Your task to perform on an android device: change notification settings in the gmail app Image 0: 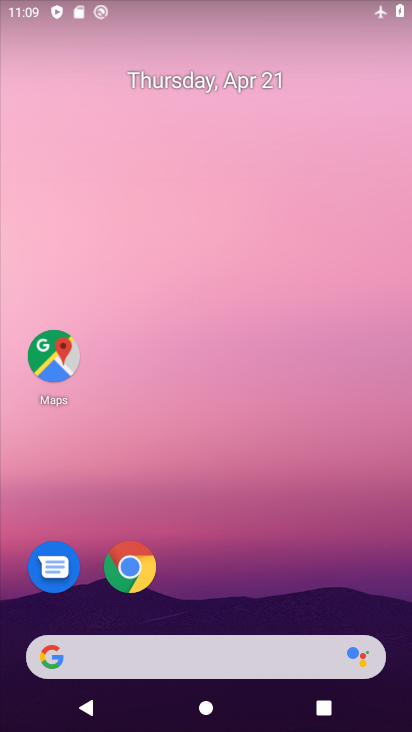
Step 0: drag from (191, 619) to (255, 108)
Your task to perform on an android device: change notification settings in the gmail app Image 1: 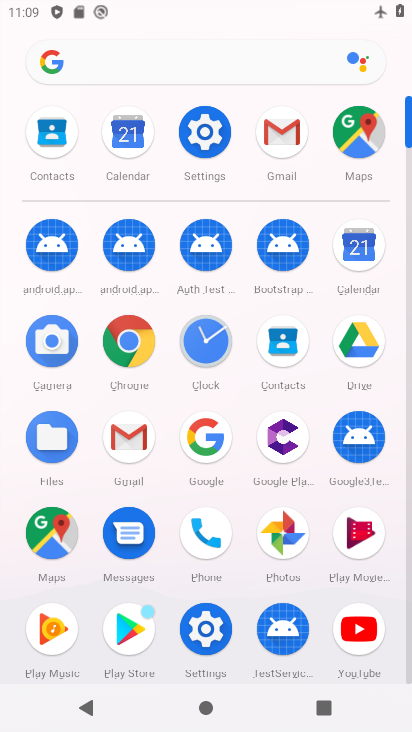
Step 1: click (131, 443)
Your task to perform on an android device: change notification settings in the gmail app Image 2: 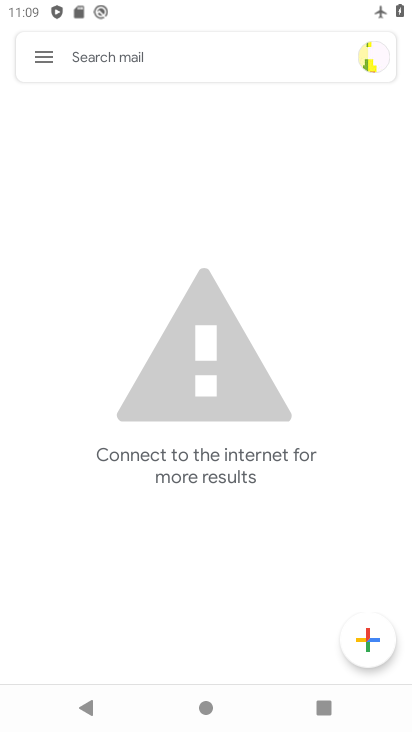
Step 2: click (43, 55)
Your task to perform on an android device: change notification settings in the gmail app Image 3: 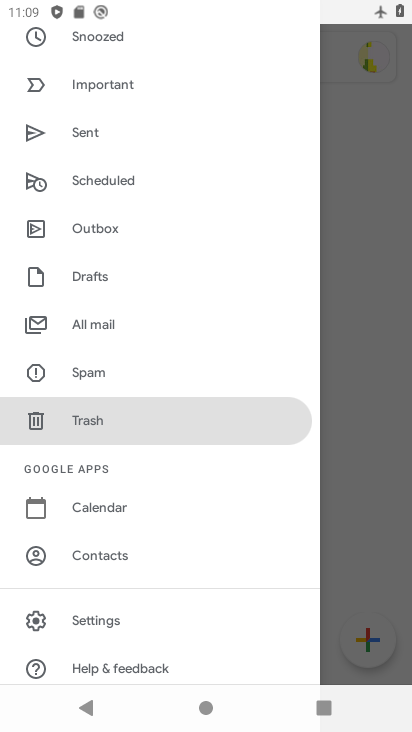
Step 3: click (87, 615)
Your task to perform on an android device: change notification settings in the gmail app Image 4: 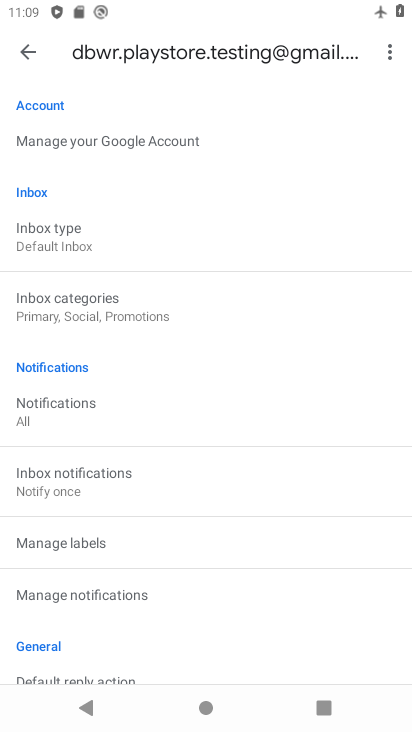
Step 4: click (29, 52)
Your task to perform on an android device: change notification settings in the gmail app Image 5: 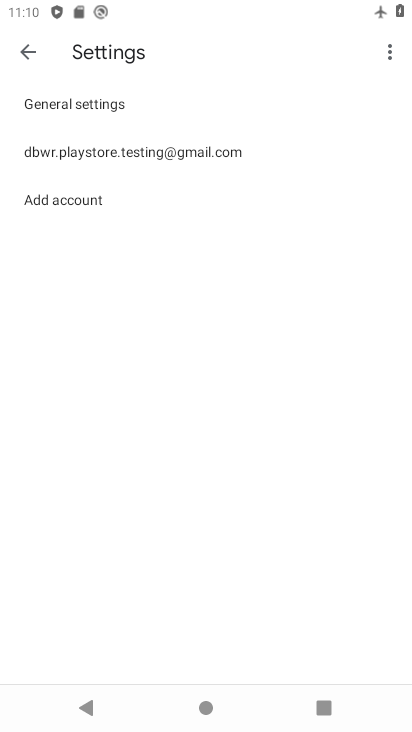
Step 5: click (102, 102)
Your task to perform on an android device: change notification settings in the gmail app Image 6: 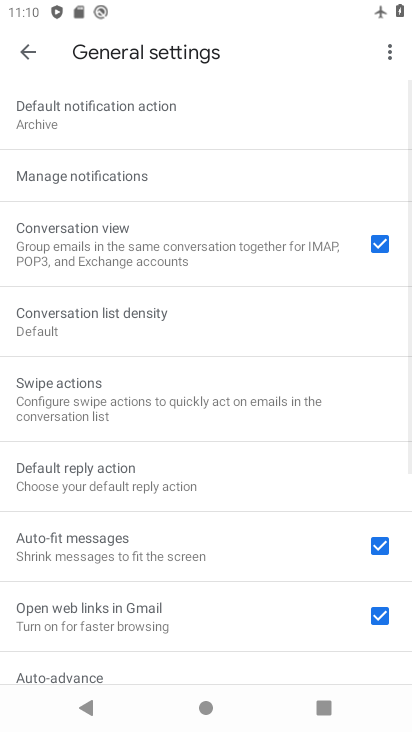
Step 6: click (87, 182)
Your task to perform on an android device: change notification settings in the gmail app Image 7: 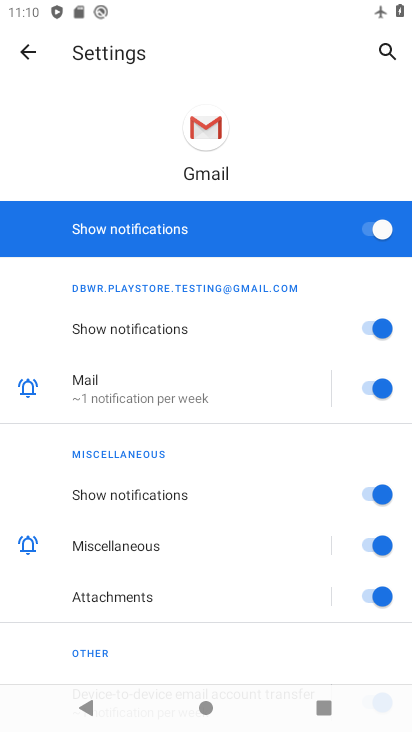
Step 7: click (365, 226)
Your task to perform on an android device: change notification settings in the gmail app Image 8: 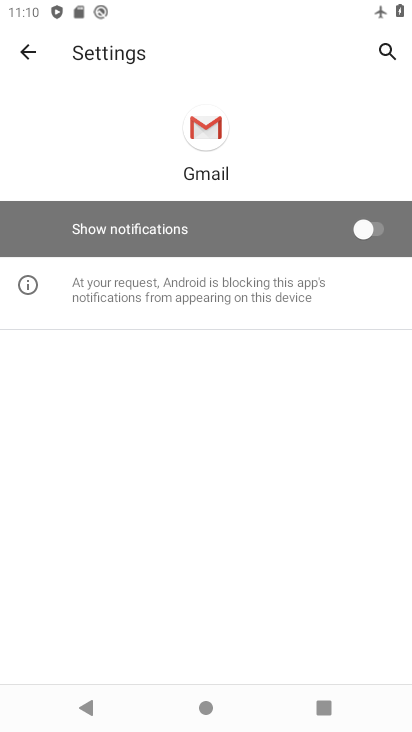
Step 8: task complete